Your task to perform on an android device: empty trash in the gmail app Image 0: 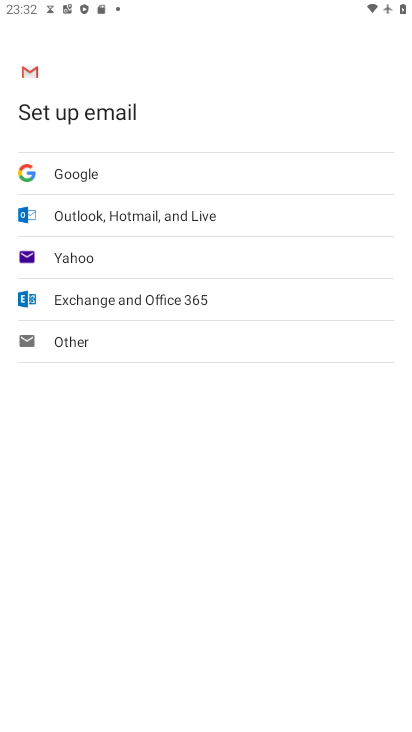
Step 0: press home button
Your task to perform on an android device: empty trash in the gmail app Image 1: 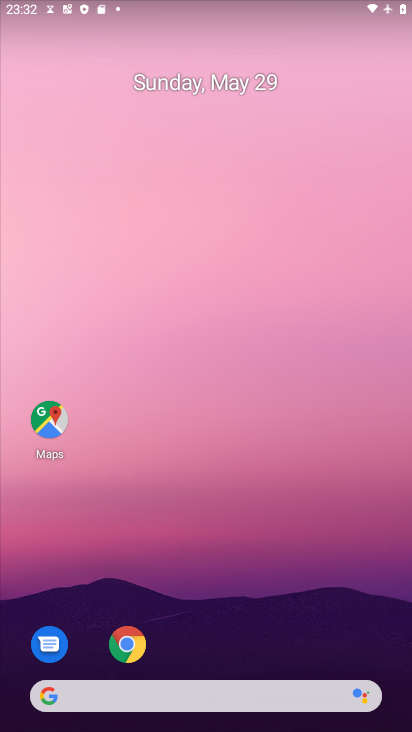
Step 1: drag from (243, 503) to (253, 241)
Your task to perform on an android device: empty trash in the gmail app Image 2: 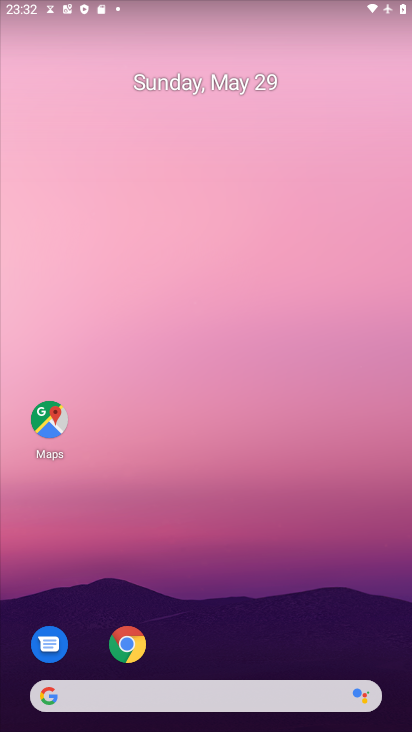
Step 2: drag from (202, 642) to (225, 322)
Your task to perform on an android device: empty trash in the gmail app Image 3: 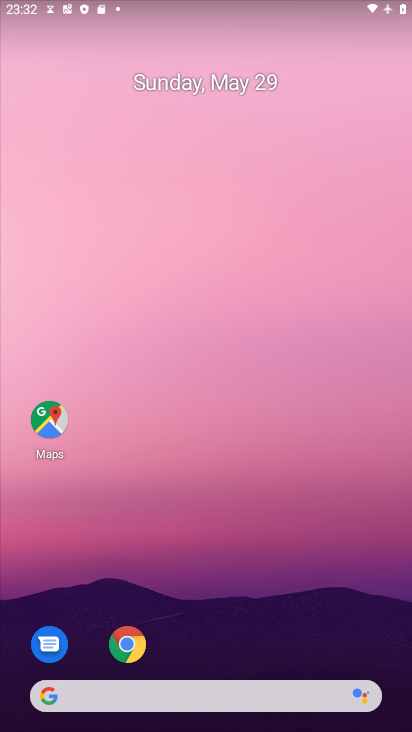
Step 3: drag from (235, 648) to (209, 165)
Your task to perform on an android device: empty trash in the gmail app Image 4: 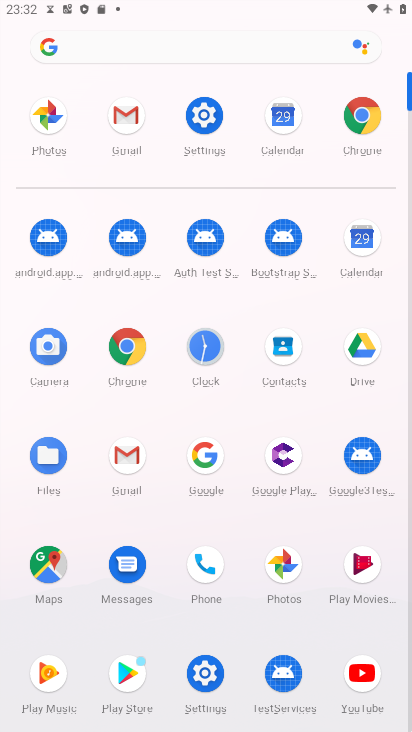
Step 4: click (204, 117)
Your task to perform on an android device: empty trash in the gmail app Image 5: 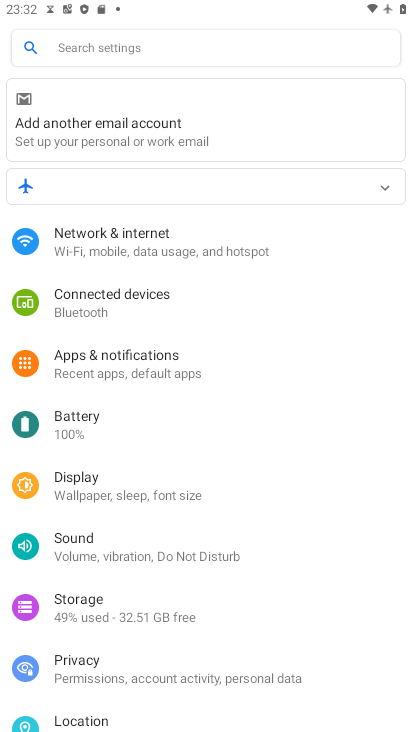
Step 5: press home button
Your task to perform on an android device: empty trash in the gmail app Image 6: 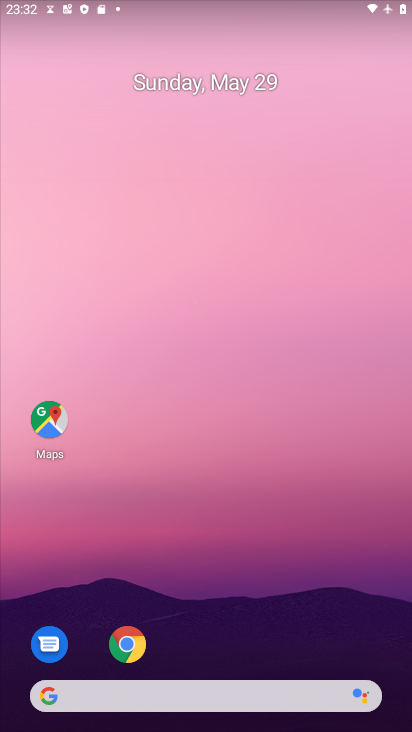
Step 6: drag from (202, 630) to (198, 221)
Your task to perform on an android device: empty trash in the gmail app Image 7: 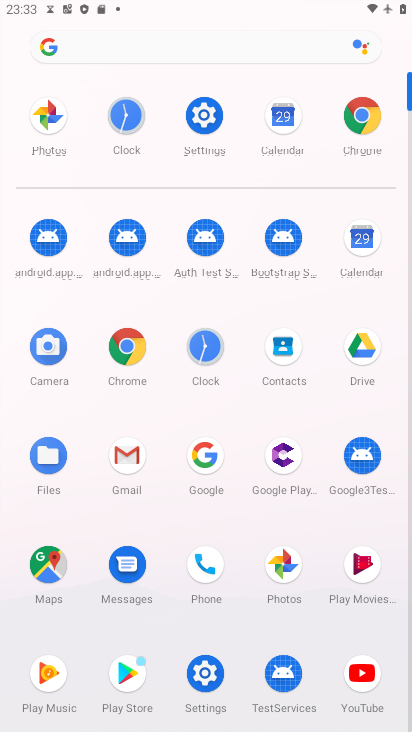
Step 7: click (125, 446)
Your task to perform on an android device: empty trash in the gmail app Image 8: 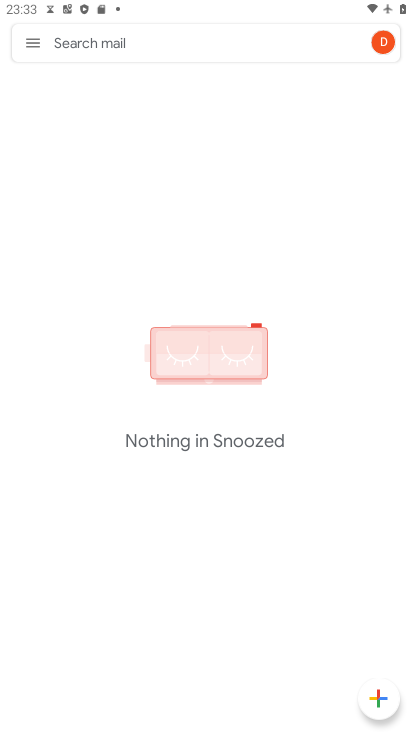
Step 8: click (39, 43)
Your task to perform on an android device: empty trash in the gmail app Image 9: 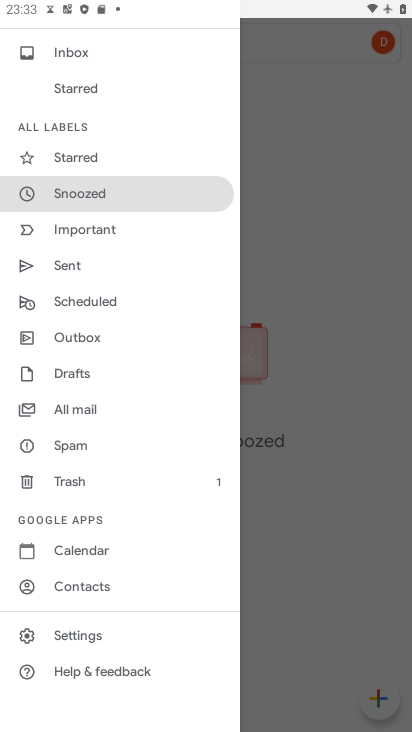
Step 9: click (84, 473)
Your task to perform on an android device: empty trash in the gmail app Image 10: 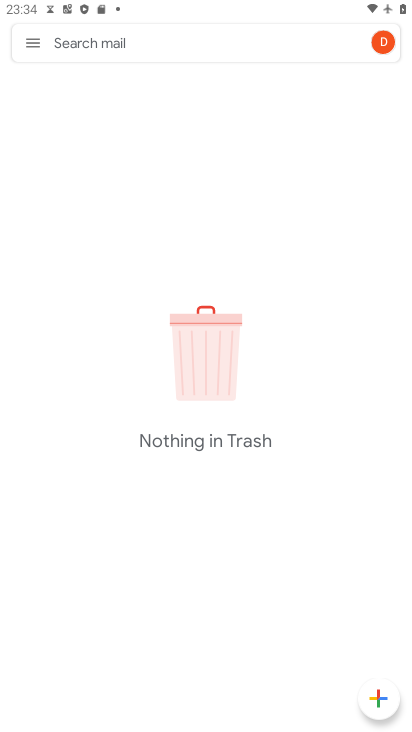
Step 10: task complete